Your task to perform on an android device: Turn on the flashlight Image 0: 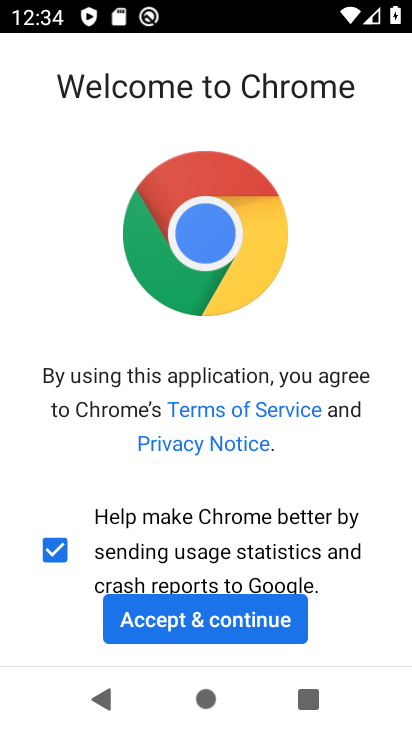
Step 0: press home button
Your task to perform on an android device: Turn on the flashlight Image 1: 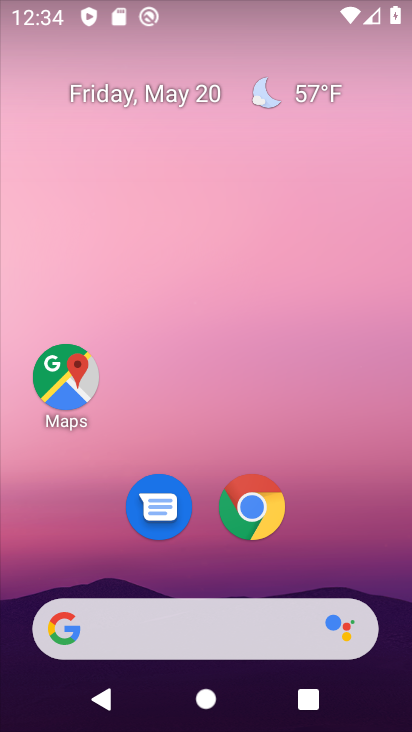
Step 1: drag from (322, 532) to (220, 76)
Your task to perform on an android device: Turn on the flashlight Image 2: 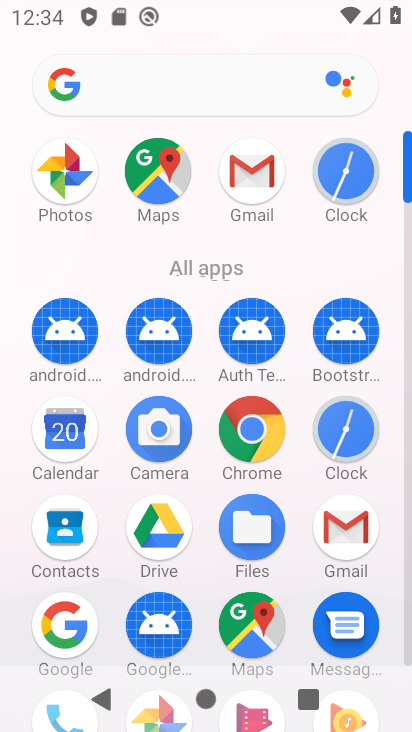
Step 2: drag from (199, 563) to (202, 224)
Your task to perform on an android device: Turn on the flashlight Image 3: 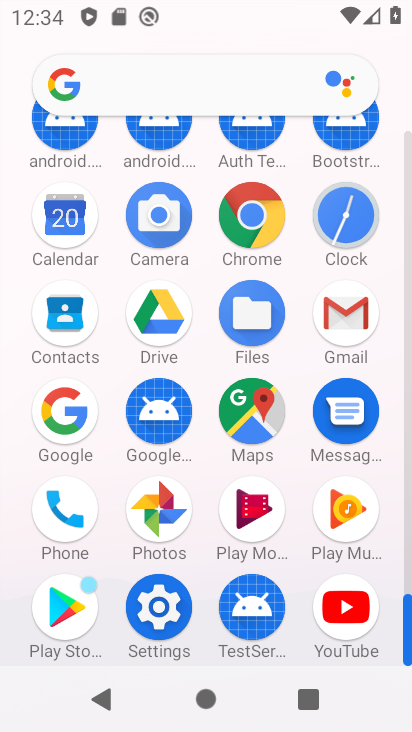
Step 3: click (166, 620)
Your task to perform on an android device: Turn on the flashlight Image 4: 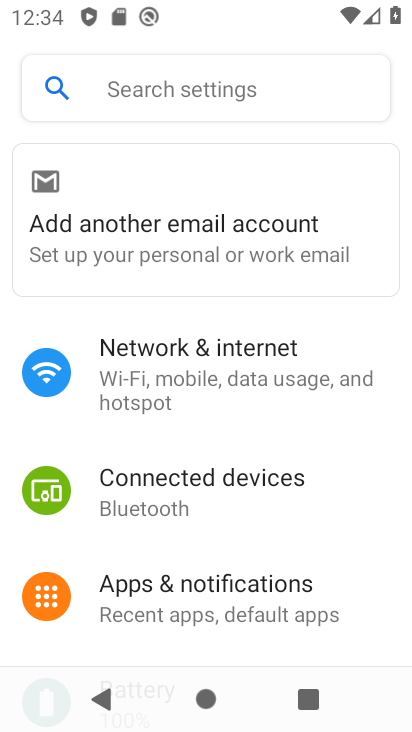
Step 4: drag from (213, 562) to (206, 304)
Your task to perform on an android device: Turn on the flashlight Image 5: 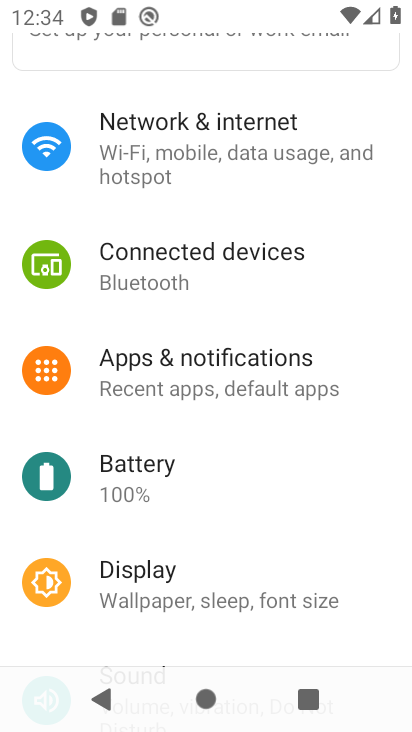
Step 5: drag from (221, 537) to (238, 258)
Your task to perform on an android device: Turn on the flashlight Image 6: 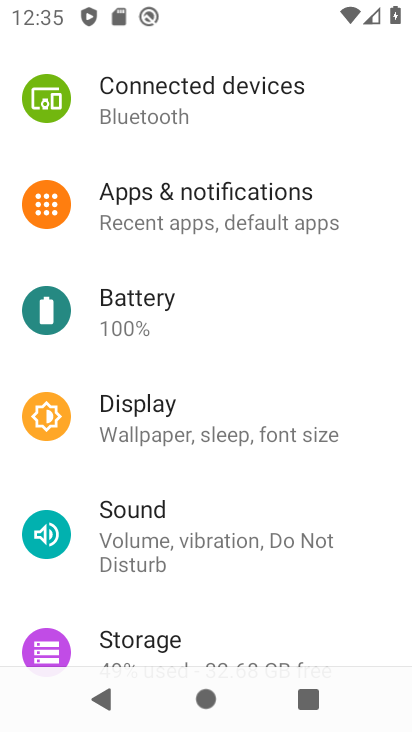
Step 6: click (165, 437)
Your task to perform on an android device: Turn on the flashlight Image 7: 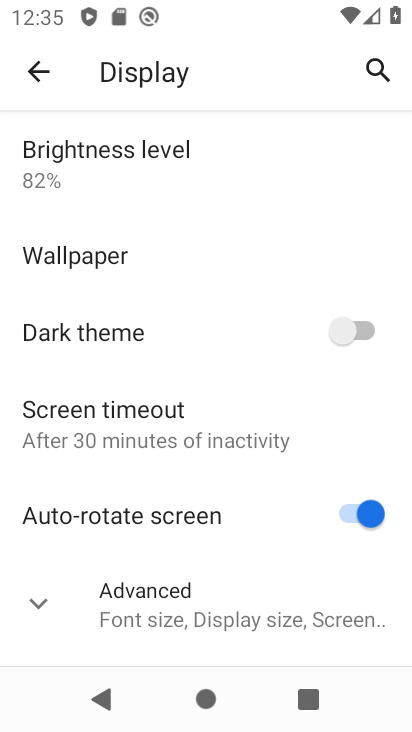
Step 7: task complete